Your task to perform on an android device: search for starred emails in the gmail app Image 0: 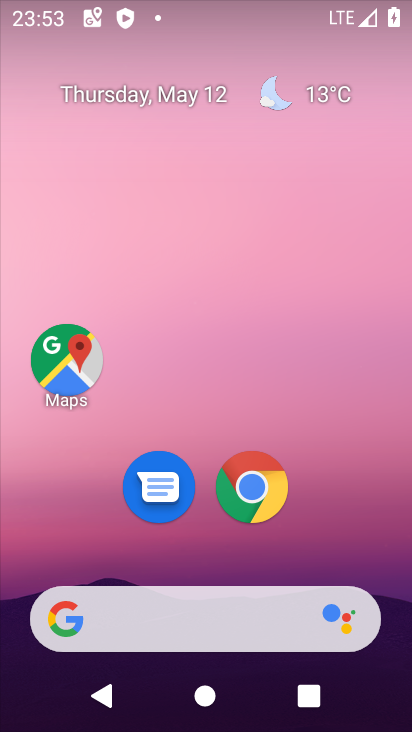
Step 0: drag from (203, 553) to (264, 325)
Your task to perform on an android device: search for starred emails in the gmail app Image 1: 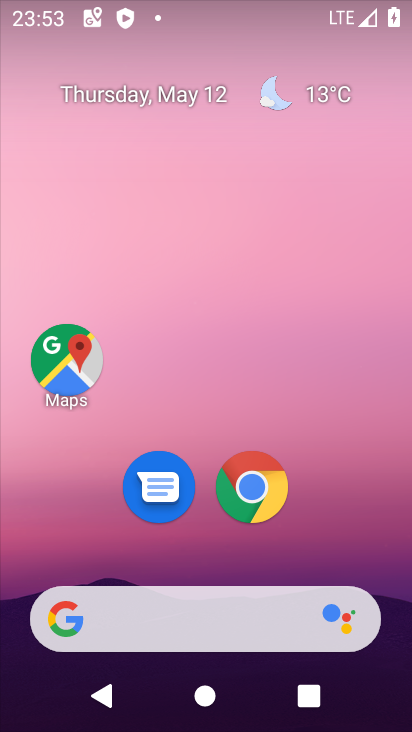
Step 1: click (222, 24)
Your task to perform on an android device: search for starred emails in the gmail app Image 2: 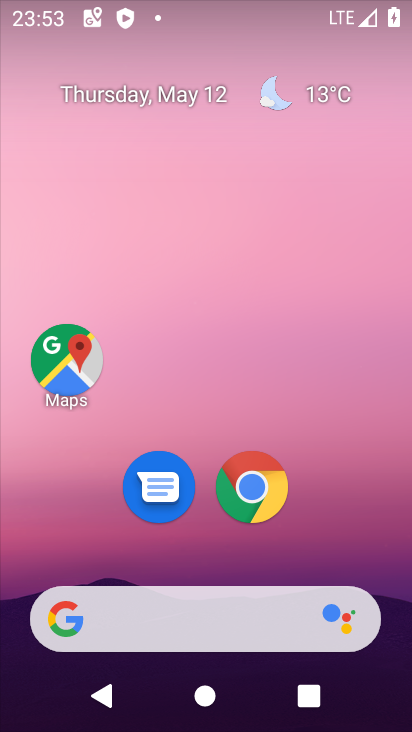
Step 2: drag from (185, 689) to (222, 202)
Your task to perform on an android device: search for starred emails in the gmail app Image 3: 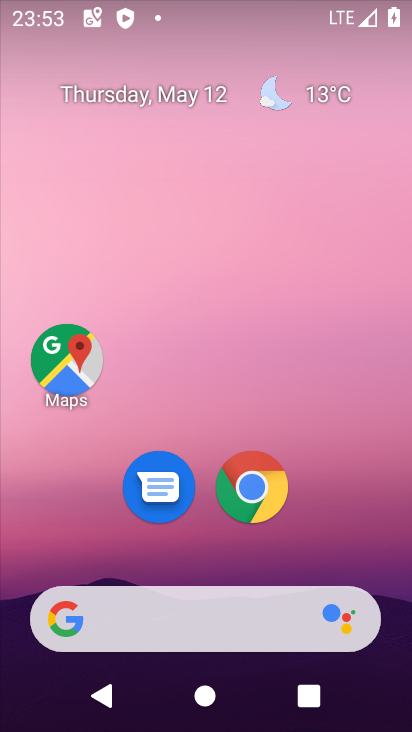
Step 3: drag from (220, 563) to (228, 115)
Your task to perform on an android device: search for starred emails in the gmail app Image 4: 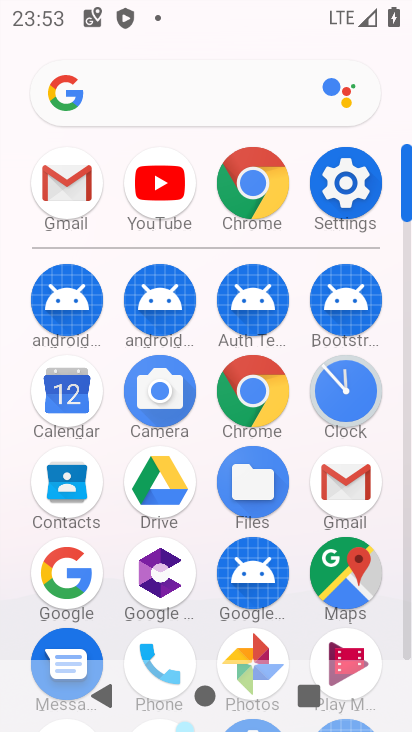
Step 4: click (367, 497)
Your task to perform on an android device: search for starred emails in the gmail app Image 5: 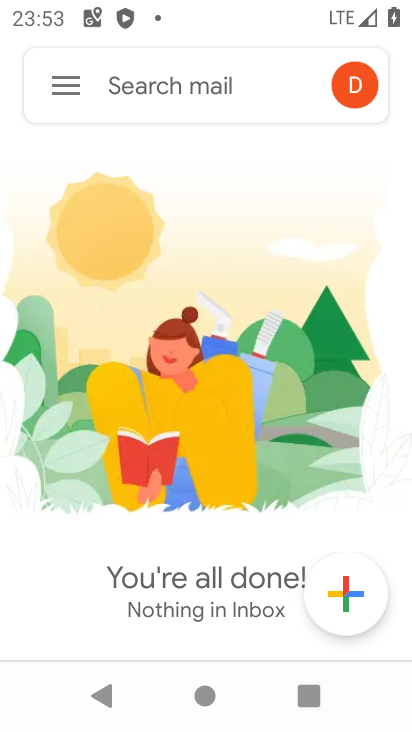
Step 5: click (89, 98)
Your task to perform on an android device: search for starred emails in the gmail app Image 6: 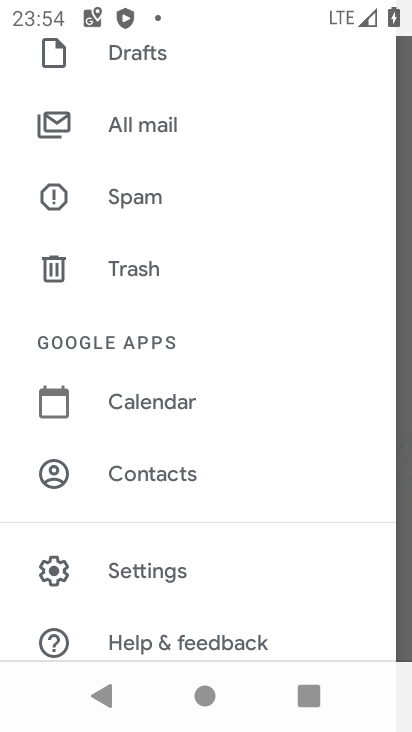
Step 6: drag from (233, 171) to (98, 627)
Your task to perform on an android device: search for starred emails in the gmail app Image 7: 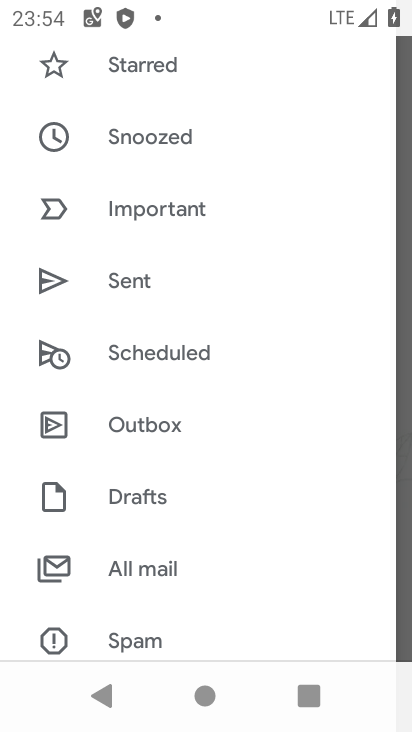
Step 7: click (130, 74)
Your task to perform on an android device: search for starred emails in the gmail app Image 8: 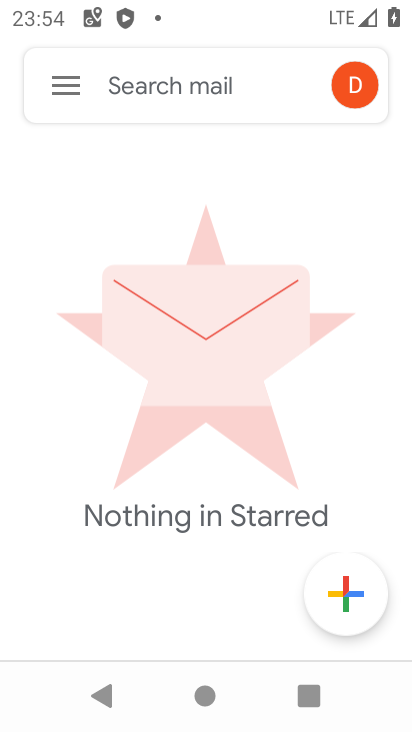
Step 8: task complete